Your task to perform on an android device: toggle priority inbox in the gmail app Image 0: 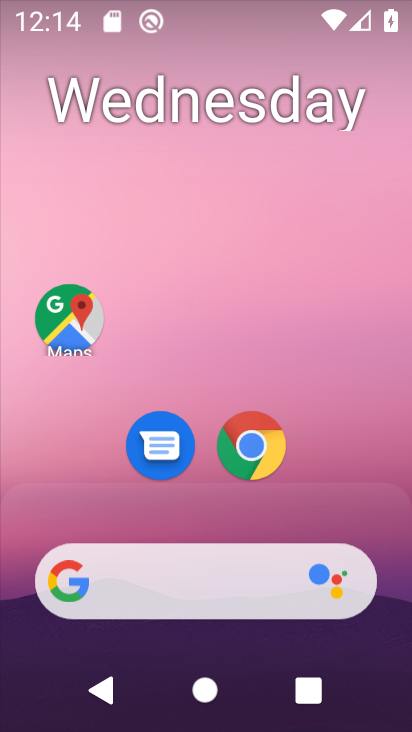
Step 0: drag from (195, 576) to (266, 131)
Your task to perform on an android device: toggle priority inbox in the gmail app Image 1: 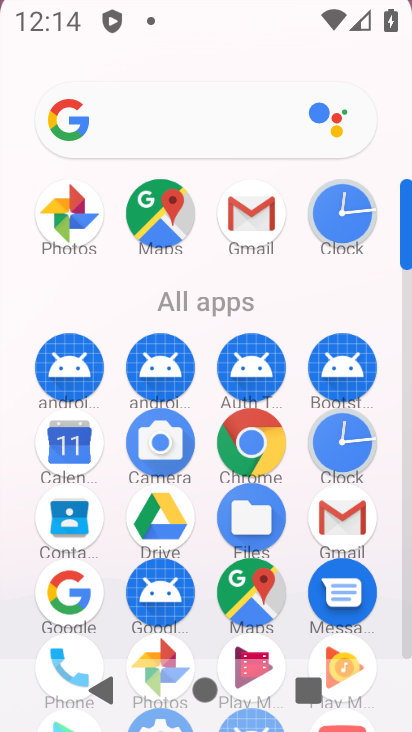
Step 1: click (266, 131)
Your task to perform on an android device: toggle priority inbox in the gmail app Image 2: 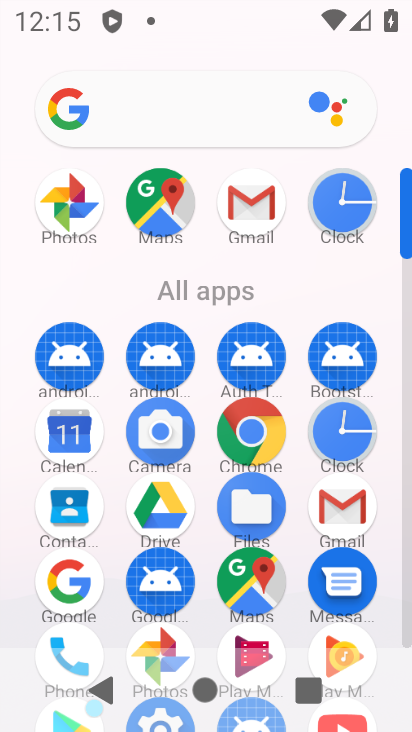
Step 2: click (245, 215)
Your task to perform on an android device: toggle priority inbox in the gmail app Image 3: 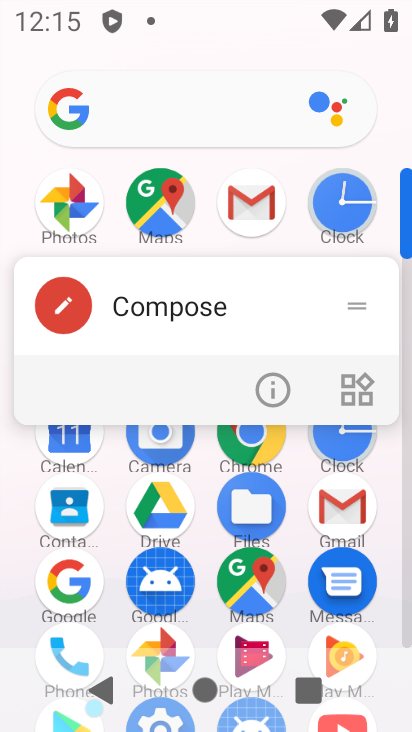
Step 3: click (245, 215)
Your task to perform on an android device: toggle priority inbox in the gmail app Image 4: 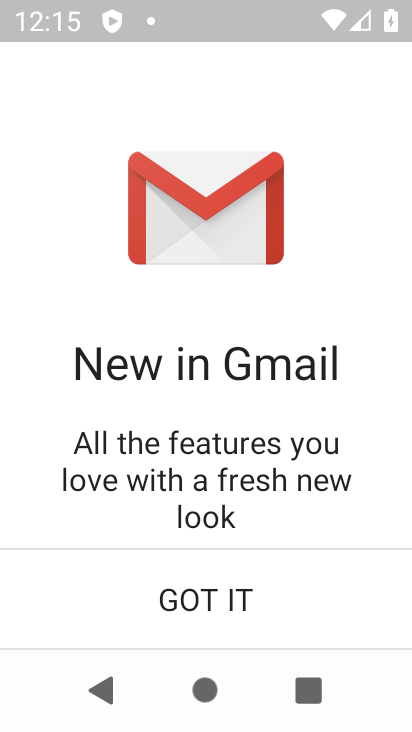
Step 4: click (224, 580)
Your task to perform on an android device: toggle priority inbox in the gmail app Image 5: 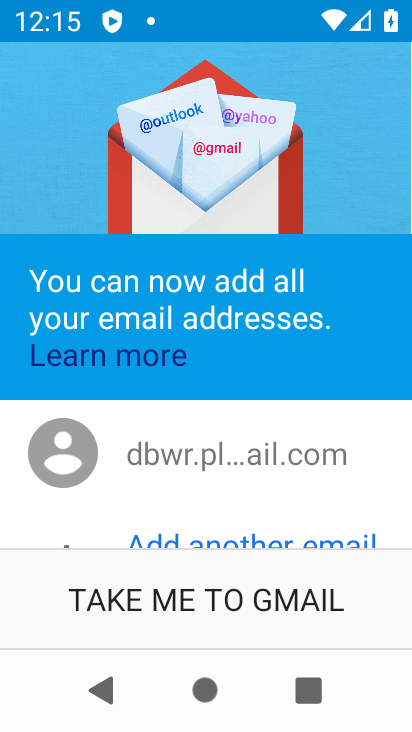
Step 5: click (224, 580)
Your task to perform on an android device: toggle priority inbox in the gmail app Image 6: 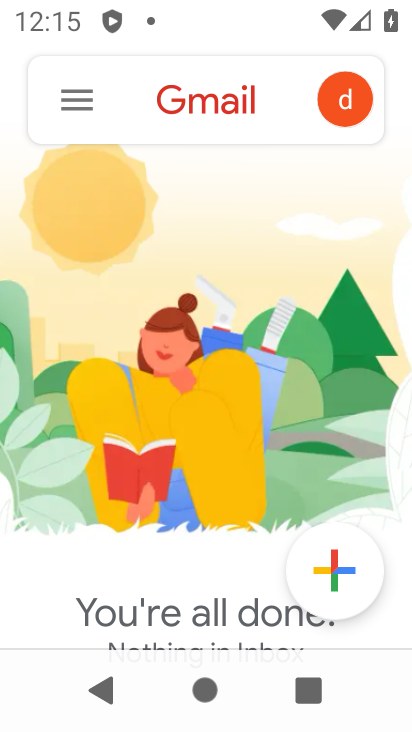
Step 6: click (87, 104)
Your task to perform on an android device: toggle priority inbox in the gmail app Image 7: 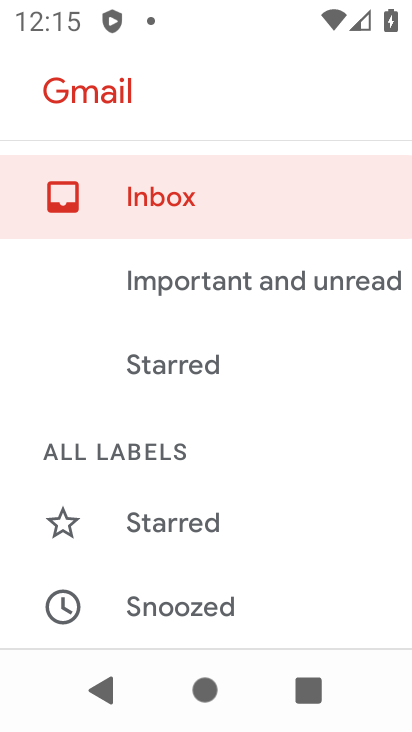
Step 7: drag from (211, 589) to (211, 96)
Your task to perform on an android device: toggle priority inbox in the gmail app Image 8: 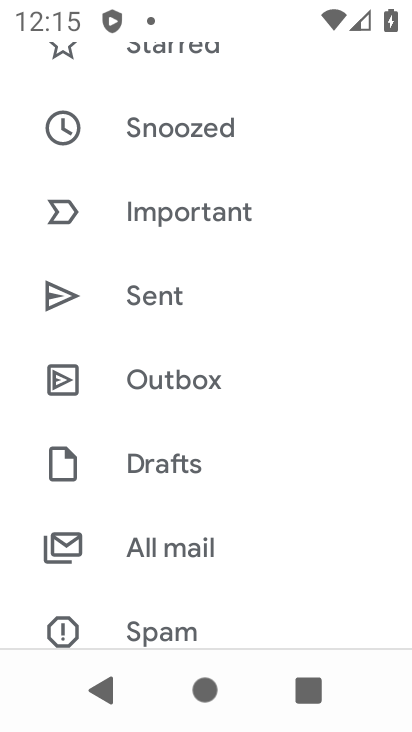
Step 8: drag from (240, 604) to (218, 182)
Your task to perform on an android device: toggle priority inbox in the gmail app Image 9: 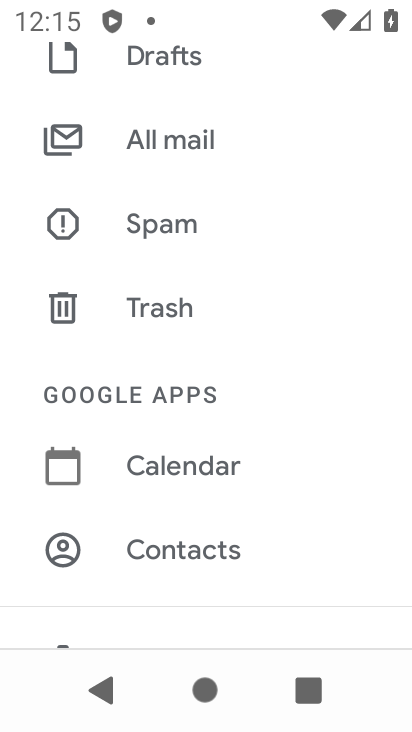
Step 9: drag from (202, 634) to (182, 191)
Your task to perform on an android device: toggle priority inbox in the gmail app Image 10: 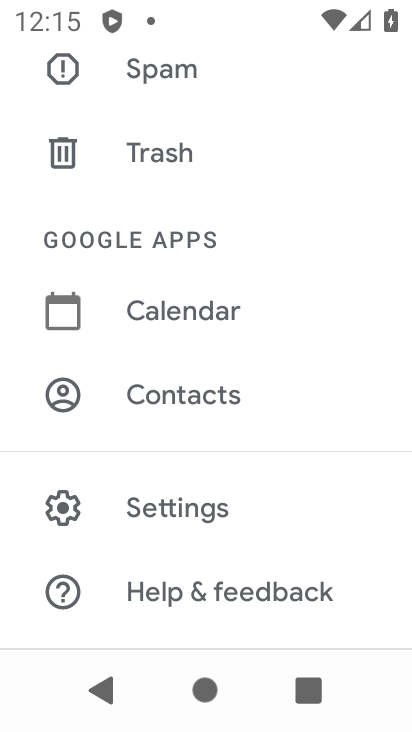
Step 10: click (141, 498)
Your task to perform on an android device: toggle priority inbox in the gmail app Image 11: 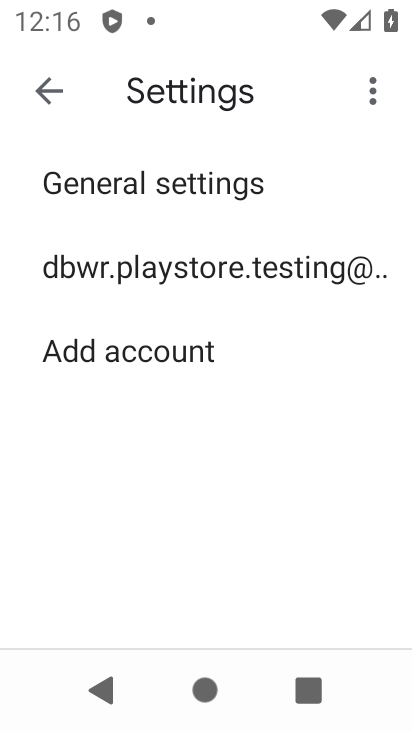
Step 11: click (167, 259)
Your task to perform on an android device: toggle priority inbox in the gmail app Image 12: 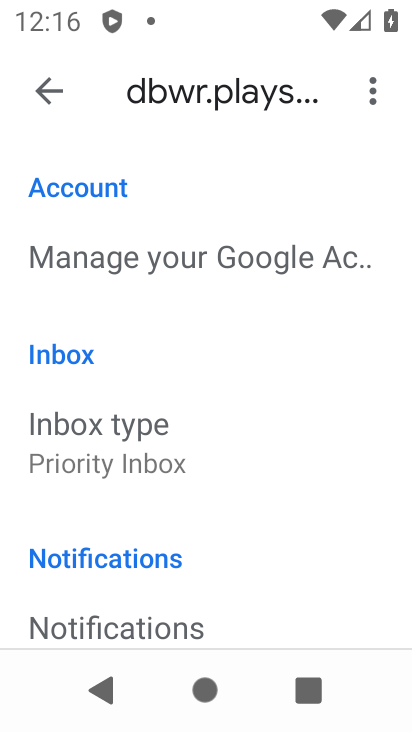
Step 12: click (144, 424)
Your task to perform on an android device: toggle priority inbox in the gmail app Image 13: 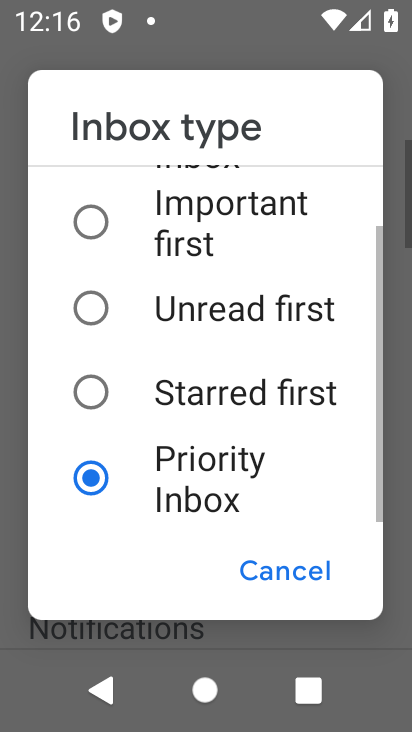
Step 13: click (202, 482)
Your task to perform on an android device: toggle priority inbox in the gmail app Image 14: 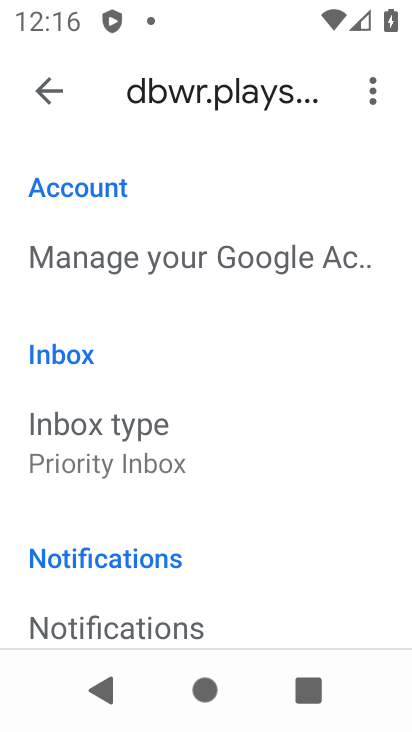
Step 14: task complete